Your task to perform on an android device: add a contact in the contacts app Image 0: 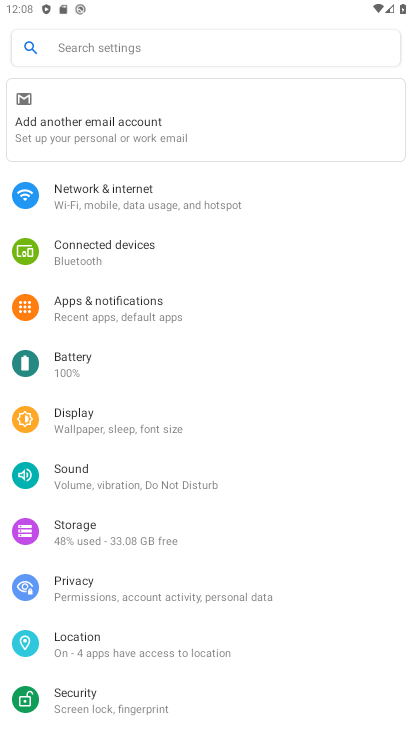
Step 0: press home button
Your task to perform on an android device: add a contact in the contacts app Image 1: 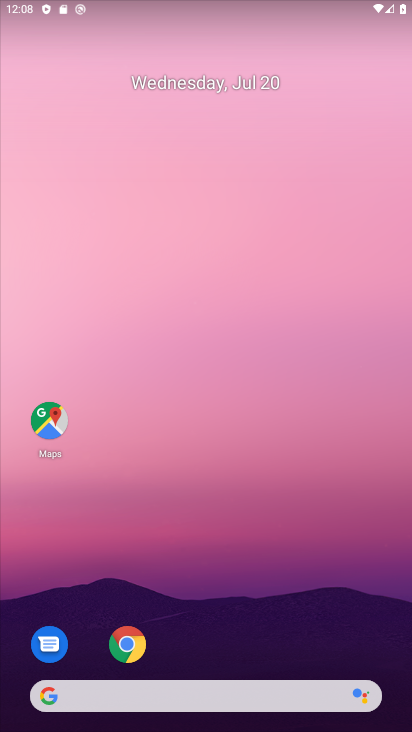
Step 1: drag from (367, 549) to (219, 90)
Your task to perform on an android device: add a contact in the contacts app Image 2: 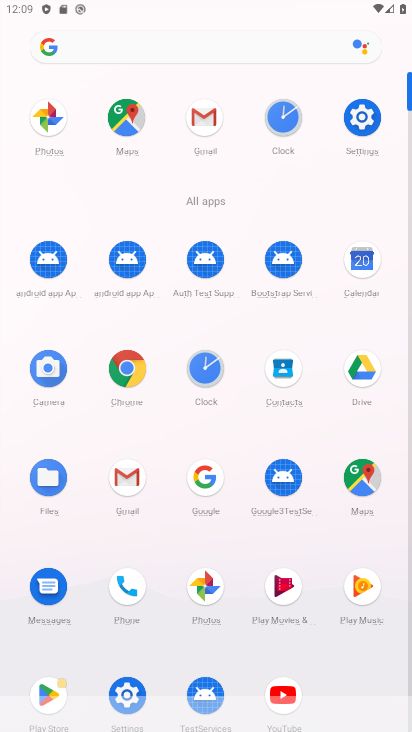
Step 2: click (280, 367)
Your task to perform on an android device: add a contact in the contacts app Image 3: 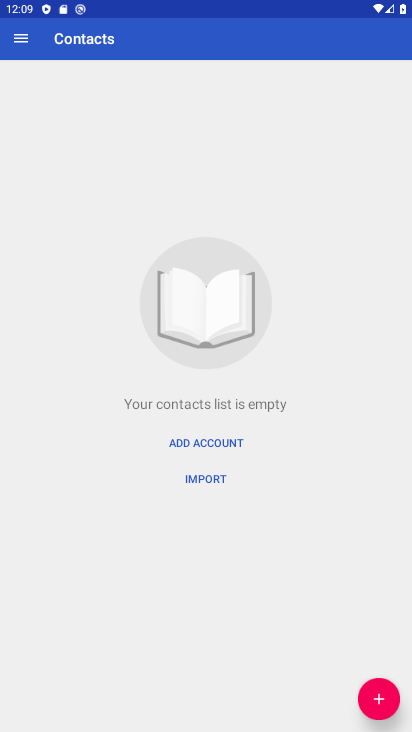
Step 3: click (375, 692)
Your task to perform on an android device: add a contact in the contacts app Image 4: 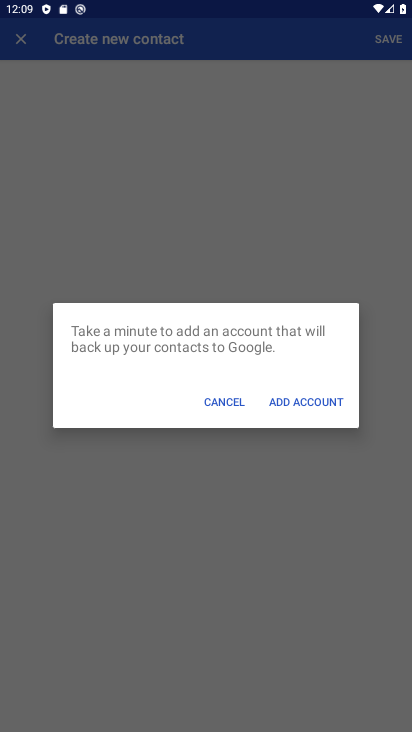
Step 4: click (261, 400)
Your task to perform on an android device: add a contact in the contacts app Image 5: 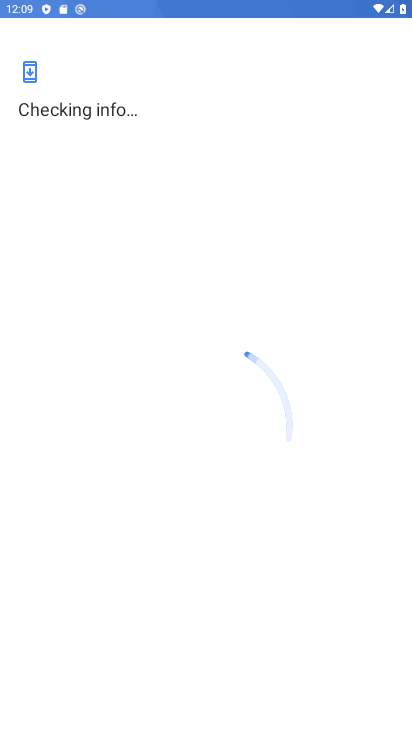
Step 5: press back button
Your task to perform on an android device: add a contact in the contacts app Image 6: 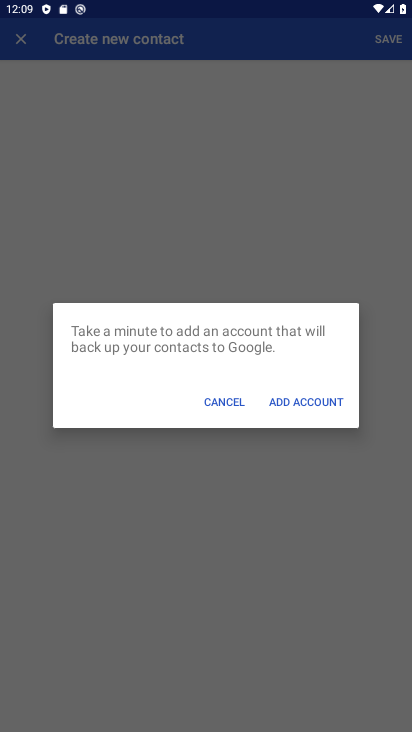
Step 6: click (207, 399)
Your task to perform on an android device: add a contact in the contacts app Image 7: 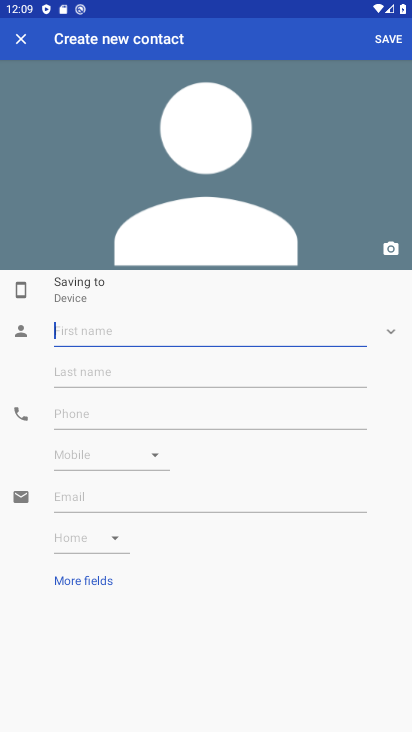
Step 7: type "pop"
Your task to perform on an android device: add a contact in the contacts app Image 8: 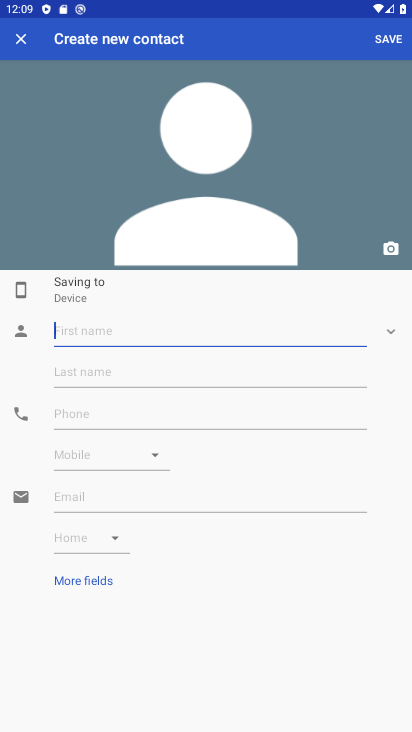
Step 8: click (233, 420)
Your task to perform on an android device: add a contact in the contacts app Image 9: 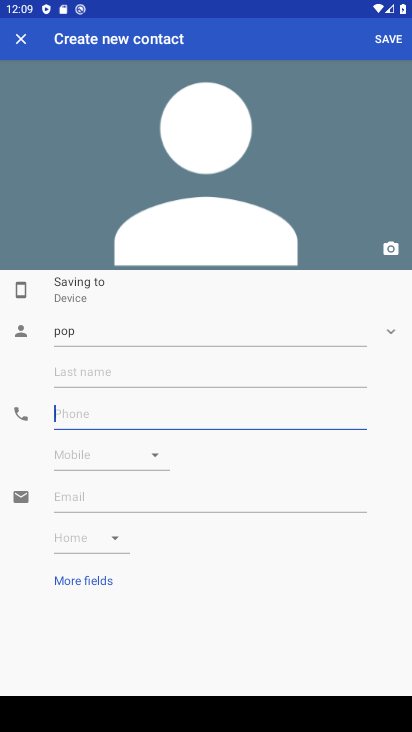
Step 9: type "9090909090"
Your task to perform on an android device: add a contact in the contacts app Image 10: 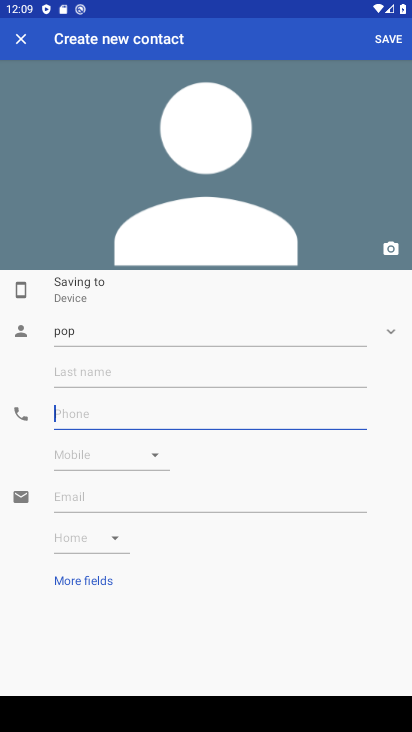
Step 10: click (387, 46)
Your task to perform on an android device: add a contact in the contacts app Image 11: 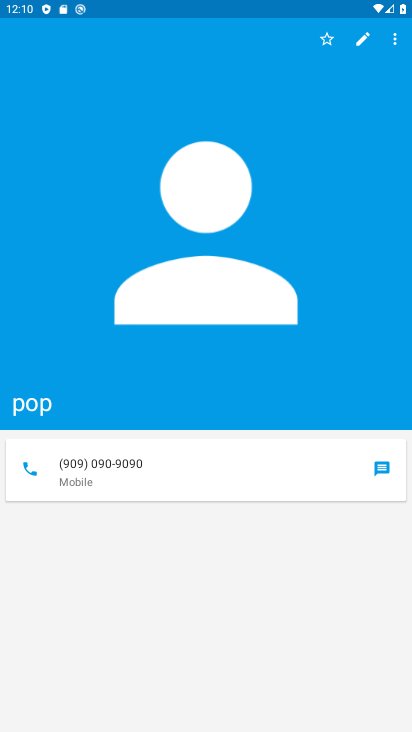
Step 11: task complete